Your task to perform on an android device: What's on my calendar tomorrow? Image 0: 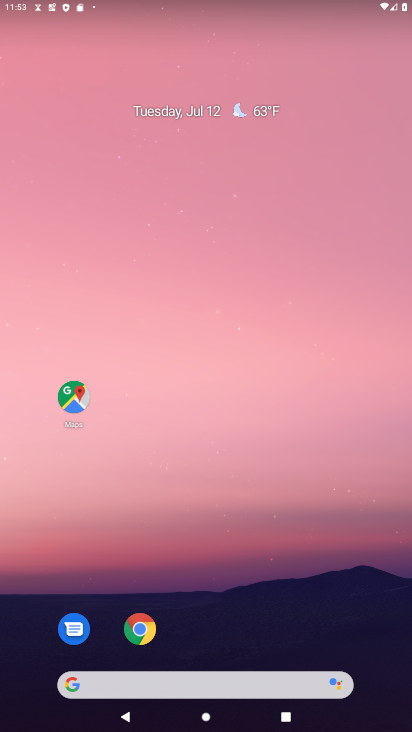
Step 0: drag from (336, 556) to (361, 147)
Your task to perform on an android device: What's on my calendar tomorrow? Image 1: 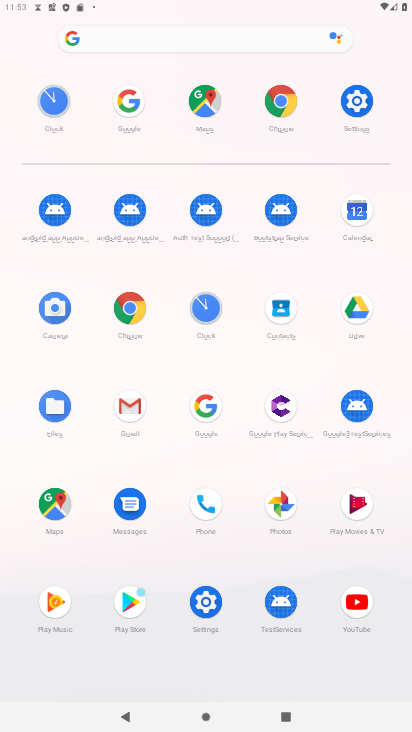
Step 1: click (362, 212)
Your task to perform on an android device: What's on my calendar tomorrow? Image 2: 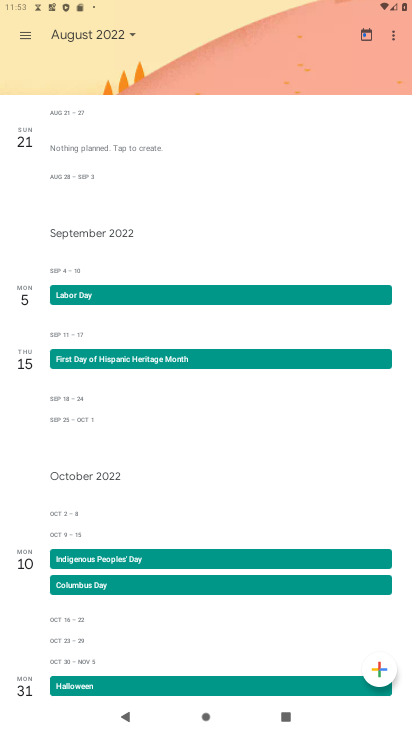
Step 2: click (123, 26)
Your task to perform on an android device: What's on my calendar tomorrow? Image 3: 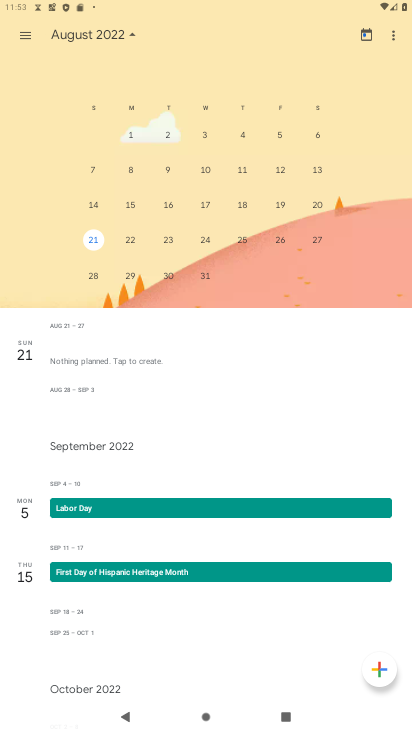
Step 3: click (132, 234)
Your task to perform on an android device: What's on my calendar tomorrow? Image 4: 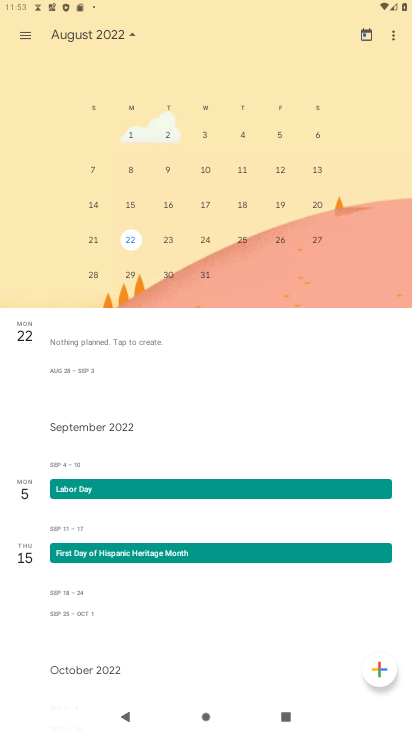
Step 4: task complete